Your task to perform on an android device: turn on priority inbox in the gmail app Image 0: 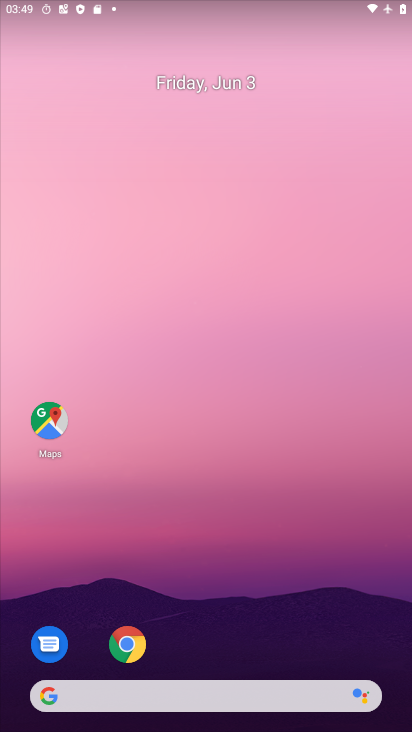
Step 0: drag from (213, 652) to (185, 160)
Your task to perform on an android device: turn on priority inbox in the gmail app Image 1: 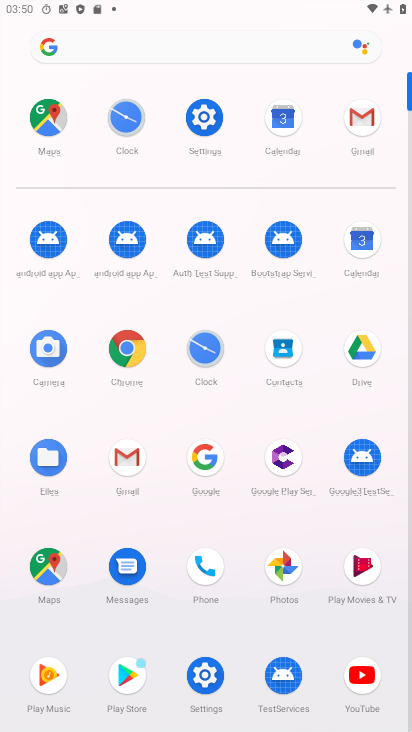
Step 1: click (349, 117)
Your task to perform on an android device: turn on priority inbox in the gmail app Image 2: 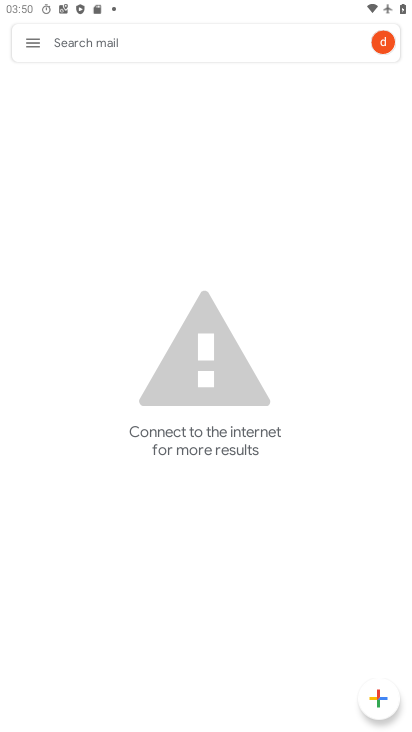
Step 2: click (40, 36)
Your task to perform on an android device: turn on priority inbox in the gmail app Image 3: 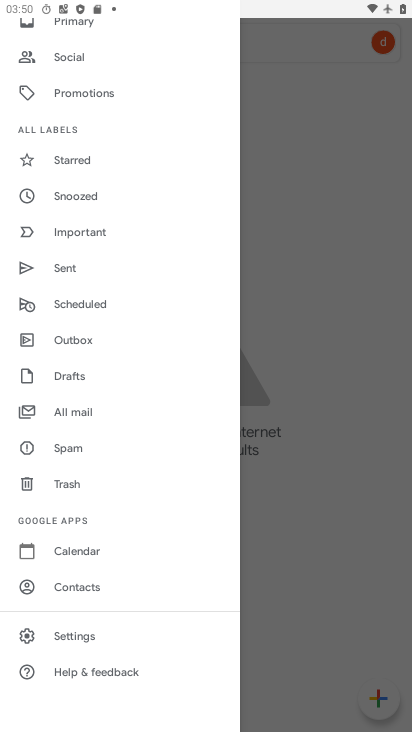
Step 3: click (82, 637)
Your task to perform on an android device: turn on priority inbox in the gmail app Image 4: 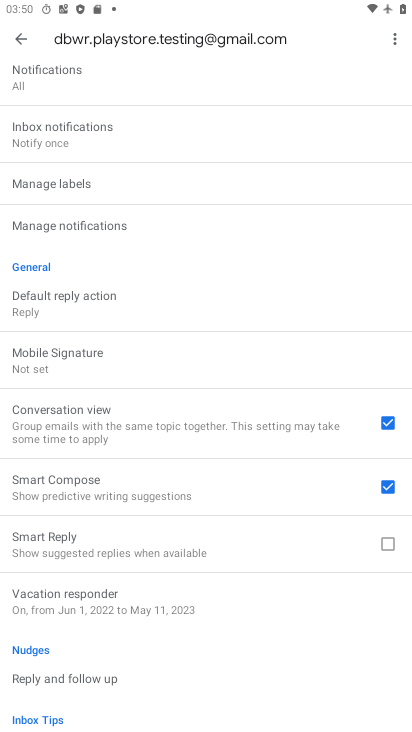
Step 4: drag from (127, 110) to (149, 406)
Your task to perform on an android device: turn on priority inbox in the gmail app Image 5: 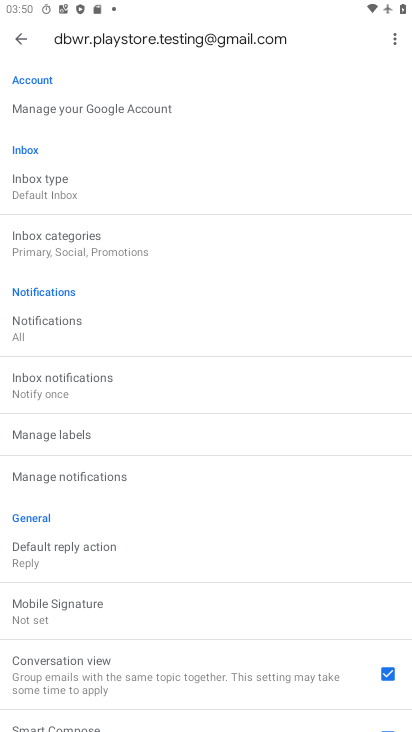
Step 5: click (87, 193)
Your task to perform on an android device: turn on priority inbox in the gmail app Image 6: 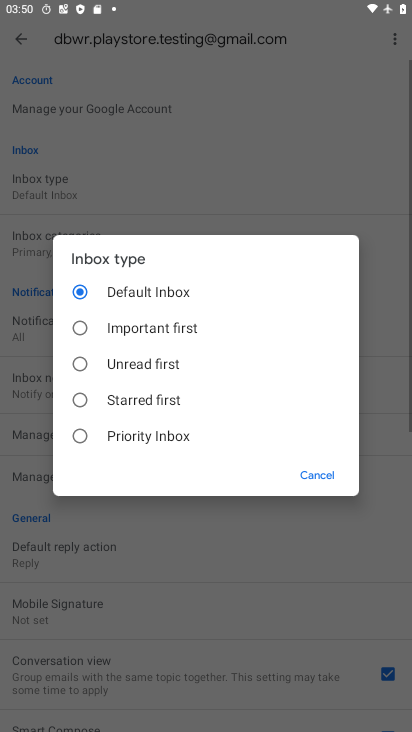
Step 6: click (132, 427)
Your task to perform on an android device: turn on priority inbox in the gmail app Image 7: 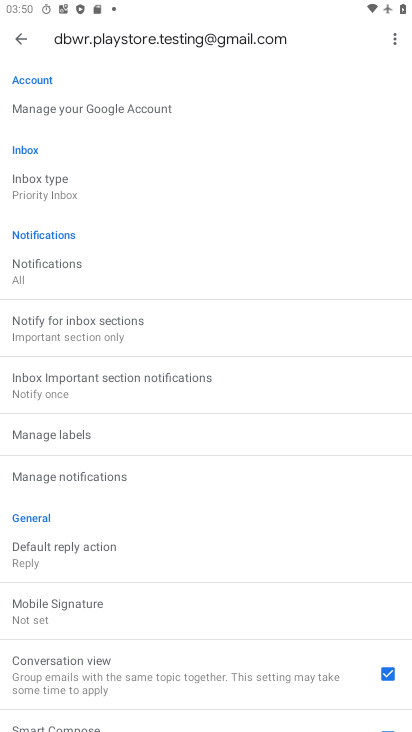
Step 7: task complete